Your task to perform on an android device: open sync settings in chrome Image 0: 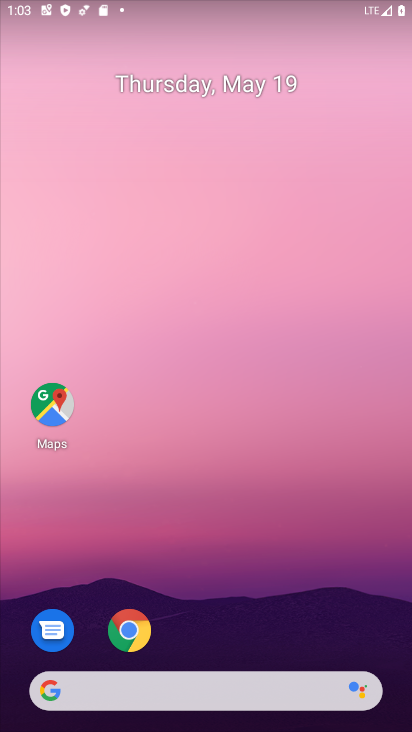
Step 0: drag from (226, 656) to (202, 85)
Your task to perform on an android device: open sync settings in chrome Image 1: 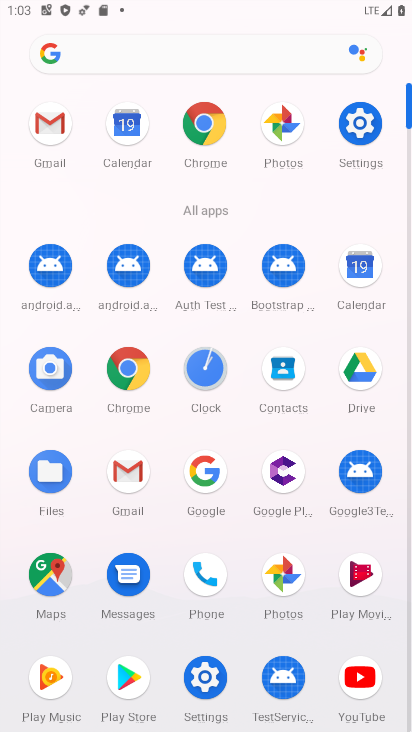
Step 1: click (134, 381)
Your task to perform on an android device: open sync settings in chrome Image 2: 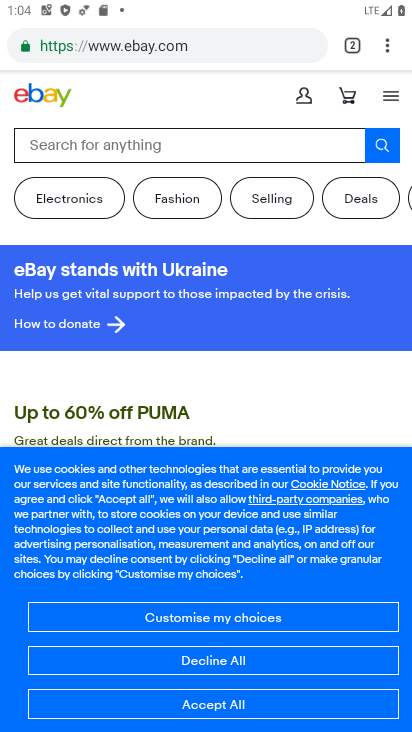
Step 2: click (379, 37)
Your task to perform on an android device: open sync settings in chrome Image 3: 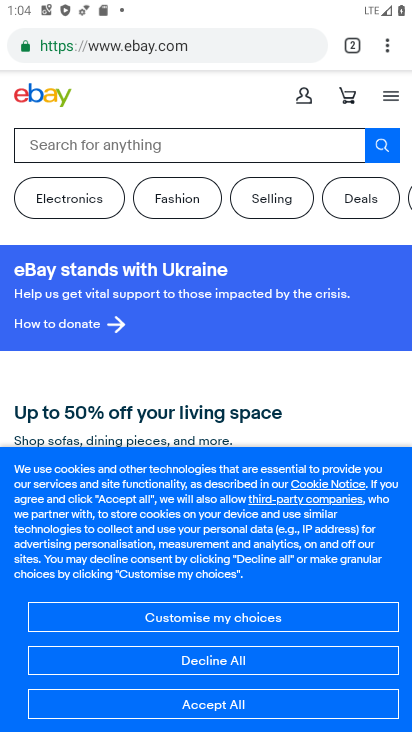
Step 3: drag from (386, 55) to (215, 538)
Your task to perform on an android device: open sync settings in chrome Image 4: 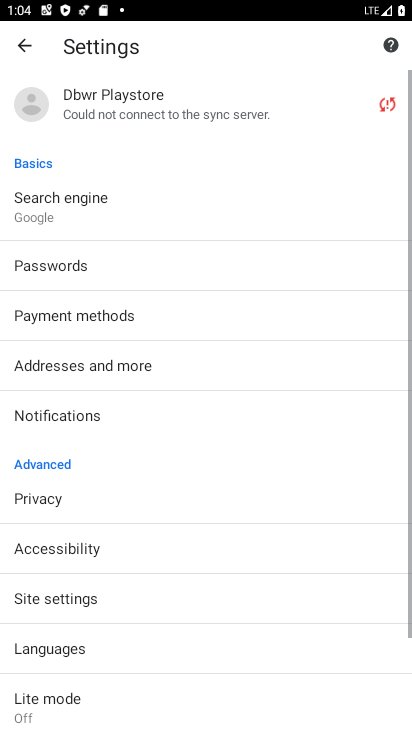
Step 4: click (94, 131)
Your task to perform on an android device: open sync settings in chrome Image 5: 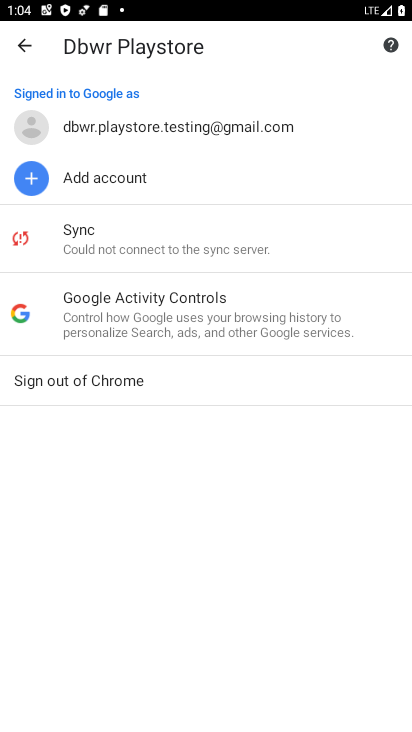
Step 5: task complete